Your task to perform on an android device: Go to ESPN.com Image 0: 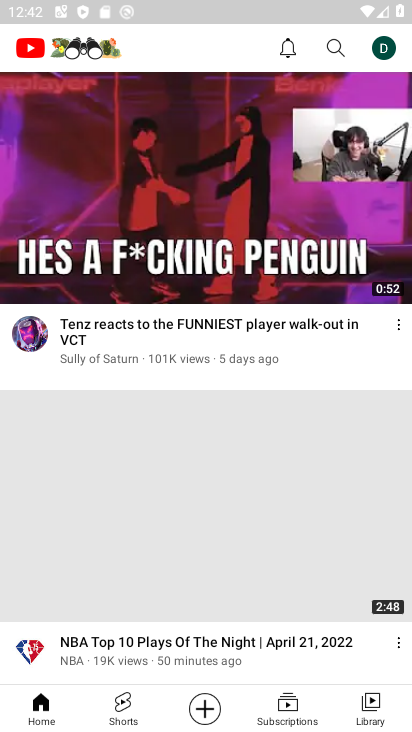
Step 0: press home button
Your task to perform on an android device: Go to ESPN.com Image 1: 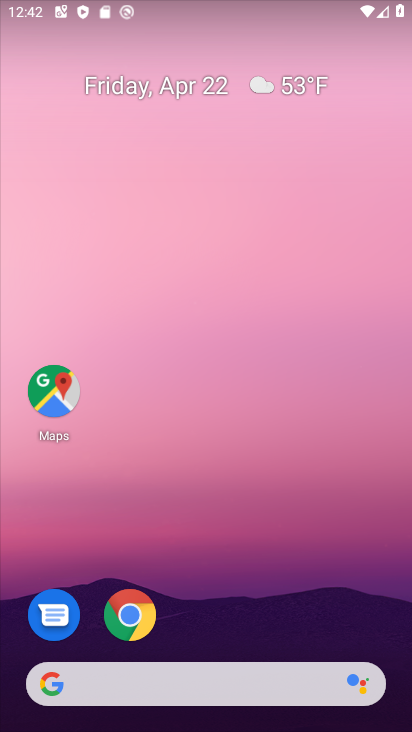
Step 1: click (136, 623)
Your task to perform on an android device: Go to ESPN.com Image 2: 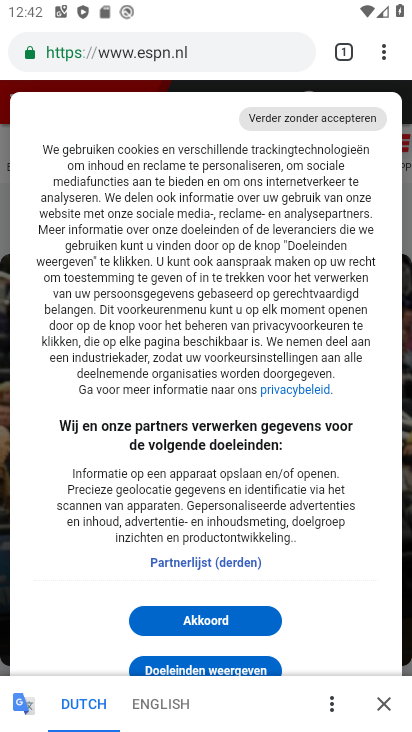
Step 2: click (186, 55)
Your task to perform on an android device: Go to ESPN.com Image 3: 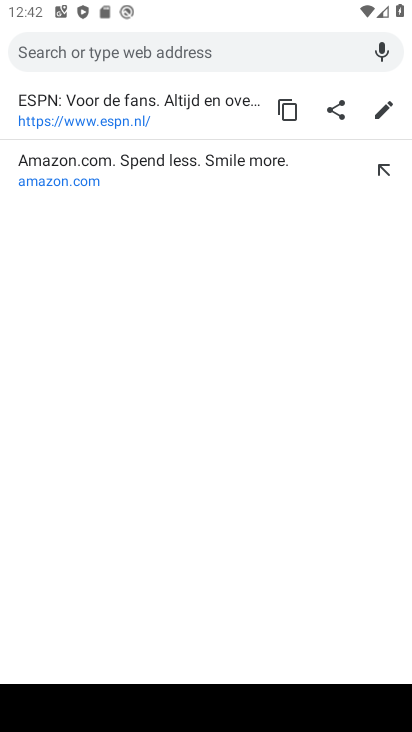
Step 3: type "espn.com"
Your task to perform on an android device: Go to ESPN.com Image 4: 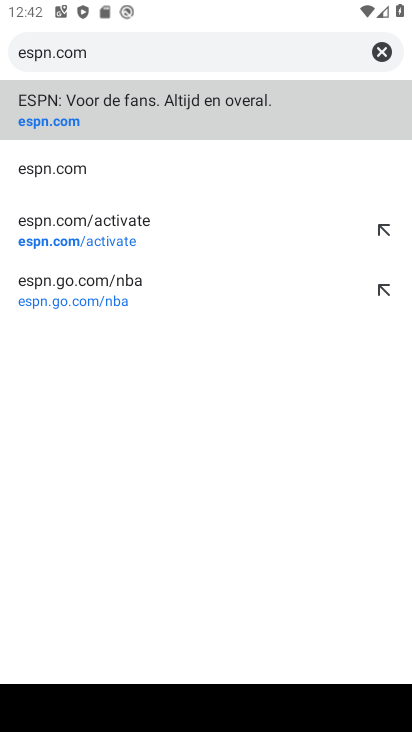
Step 4: click (64, 174)
Your task to perform on an android device: Go to ESPN.com Image 5: 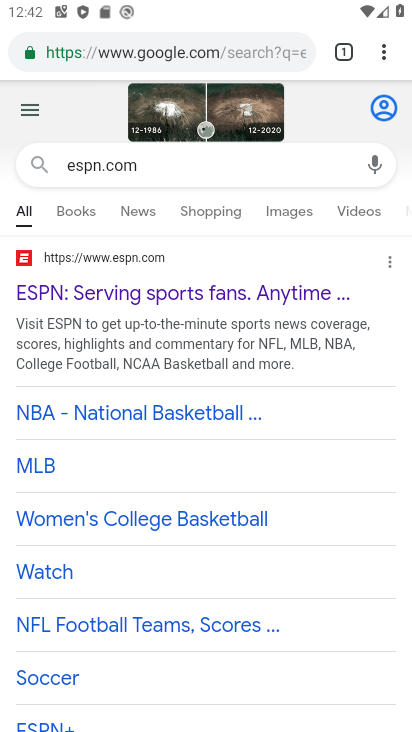
Step 5: click (73, 284)
Your task to perform on an android device: Go to ESPN.com Image 6: 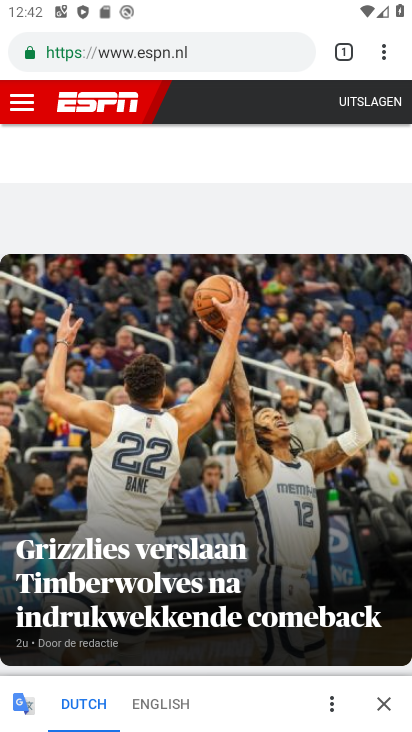
Step 6: task complete